Your task to perform on an android device: turn off notifications settings in the gmail app Image 0: 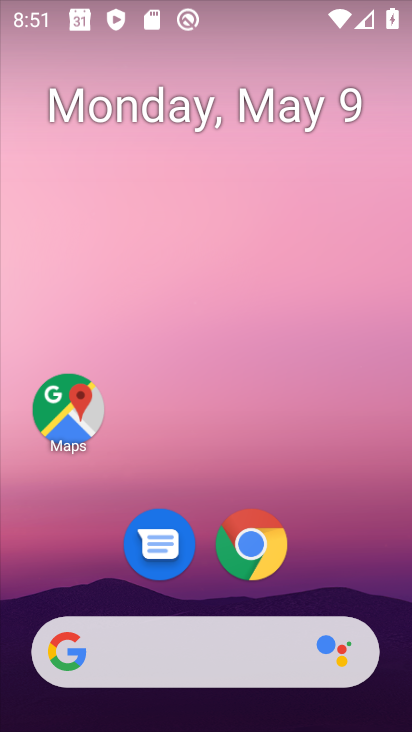
Step 0: drag from (321, 558) to (252, 104)
Your task to perform on an android device: turn off notifications settings in the gmail app Image 1: 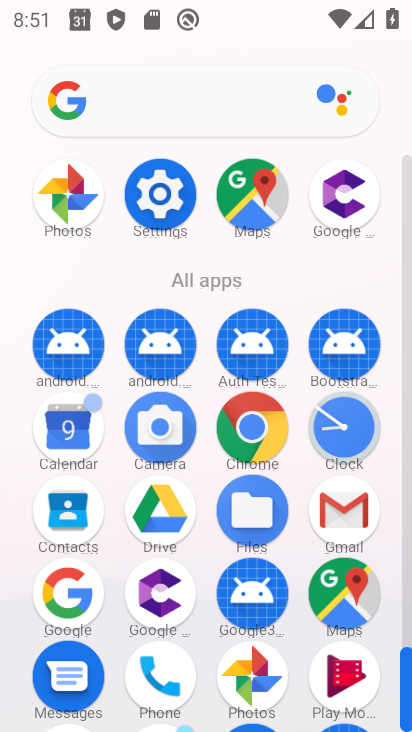
Step 1: click (347, 499)
Your task to perform on an android device: turn off notifications settings in the gmail app Image 2: 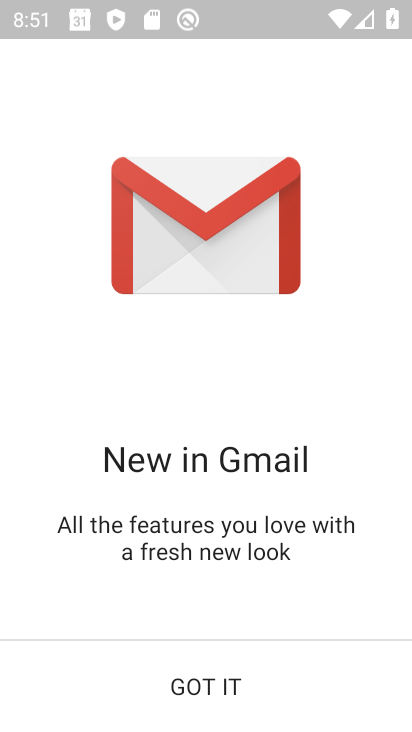
Step 2: click (210, 688)
Your task to perform on an android device: turn off notifications settings in the gmail app Image 3: 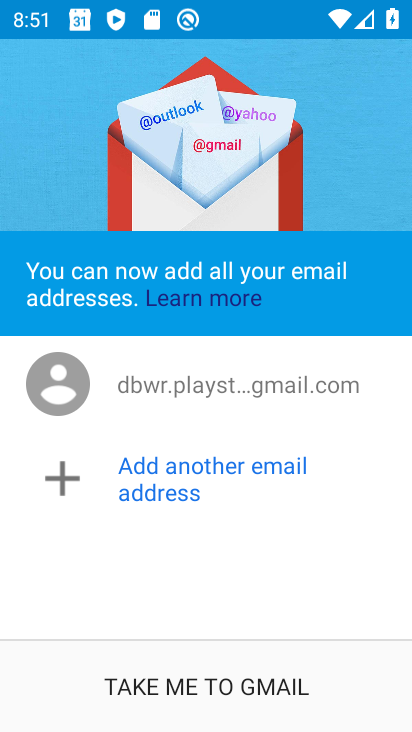
Step 3: click (210, 688)
Your task to perform on an android device: turn off notifications settings in the gmail app Image 4: 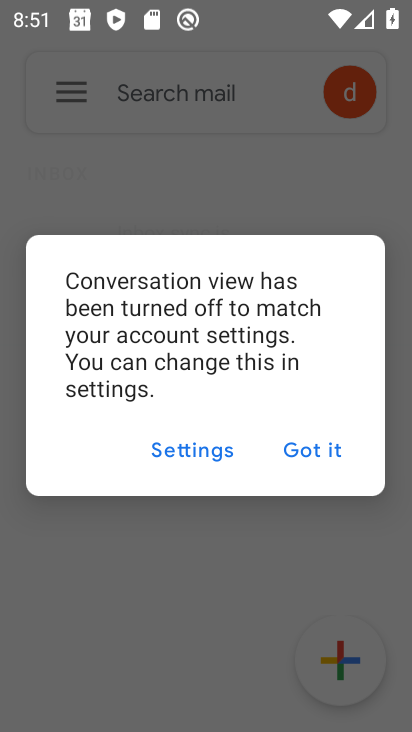
Step 4: click (304, 444)
Your task to perform on an android device: turn off notifications settings in the gmail app Image 5: 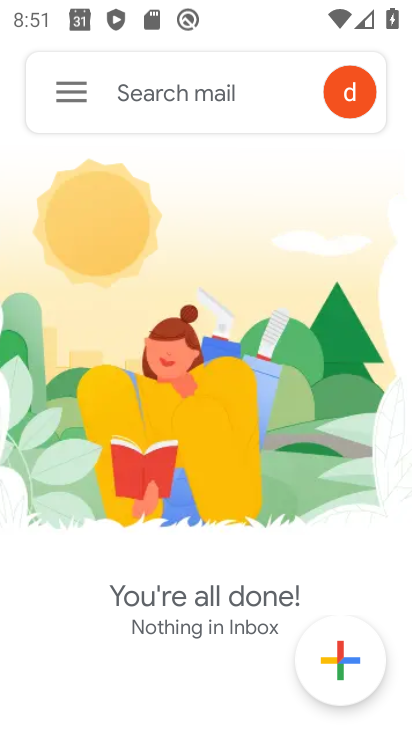
Step 5: click (70, 88)
Your task to perform on an android device: turn off notifications settings in the gmail app Image 6: 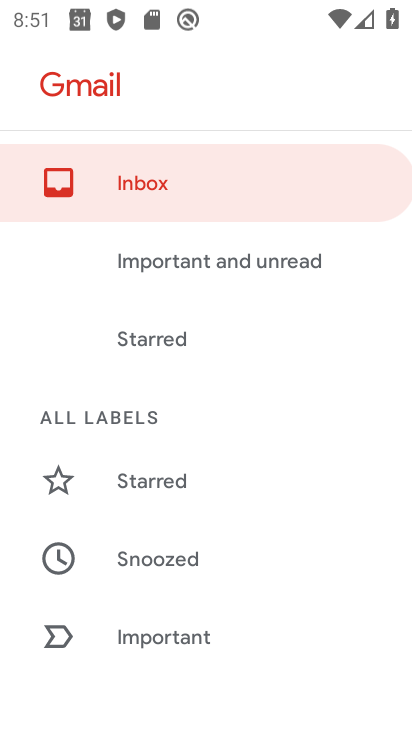
Step 6: drag from (234, 599) to (211, 208)
Your task to perform on an android device: turn off notifications settings in the gmail app Image 7: 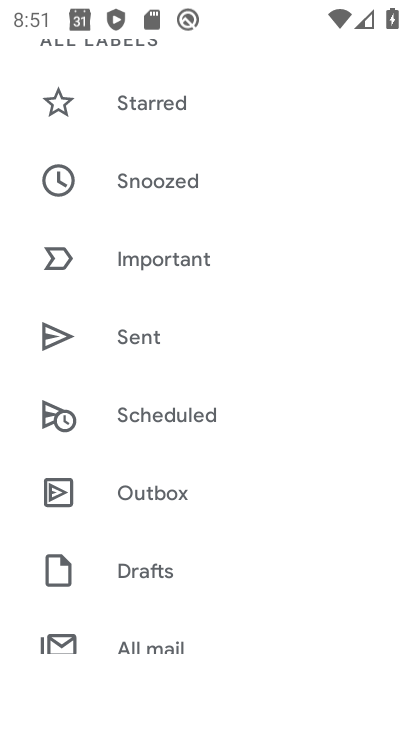
Step 7: drag from (138, 620) to (148, 16)
Your task to perform on an android device: turn off notifications settings in the gmail app Image 8: 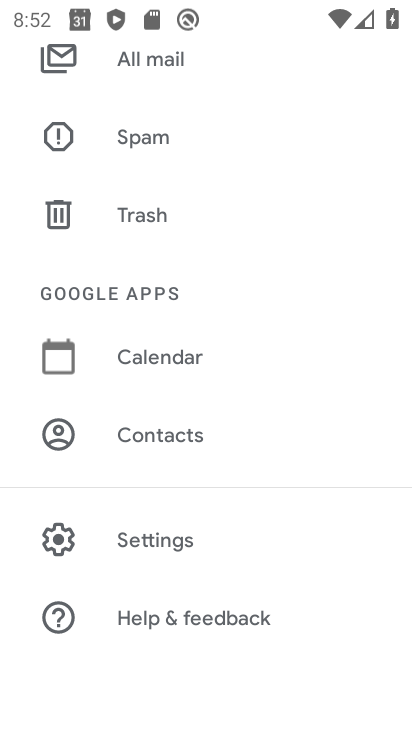
Step 8: click (126, 538)
Your task to perform on an android device: turn off notifications settings in the gmail app Image 9: 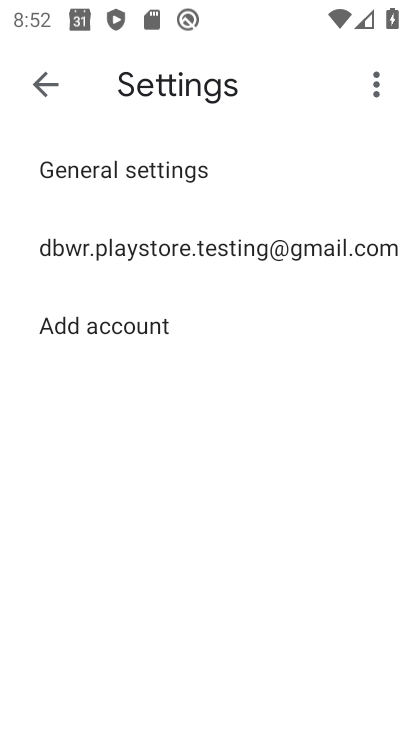
Step 9: click (112, 170)
Your task to perform on an android device: turn off notifications settings in the gmail app Image 10: 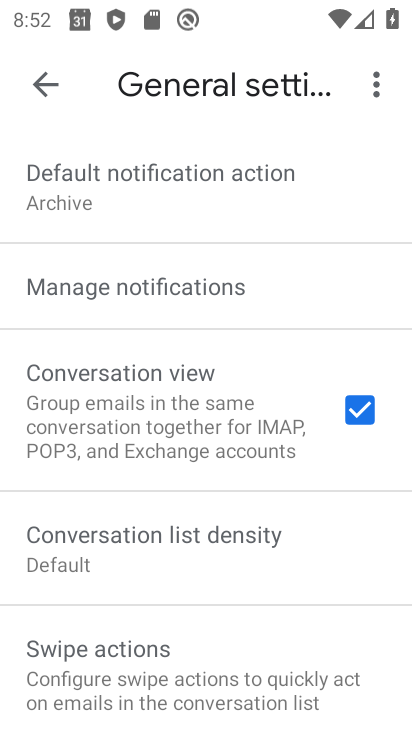
Step 10: click (112, 283)
Your task to perform on an android device: turn off notifications settings in the gmail app Image 11: 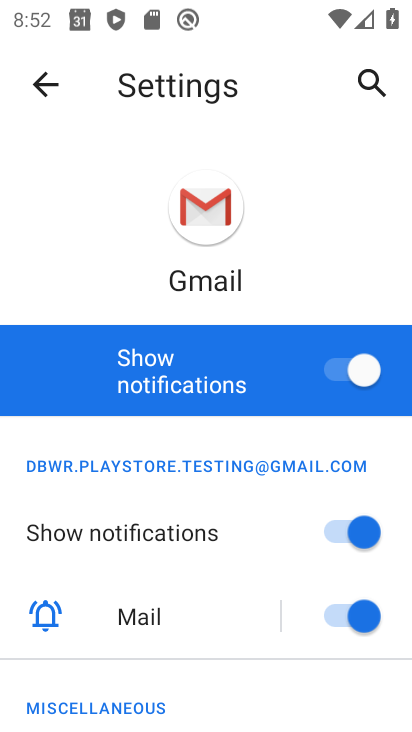
Step 11: click (363, 369)
Your task to perform on an android device: turn off notifications settings in the gmail app Image 12: 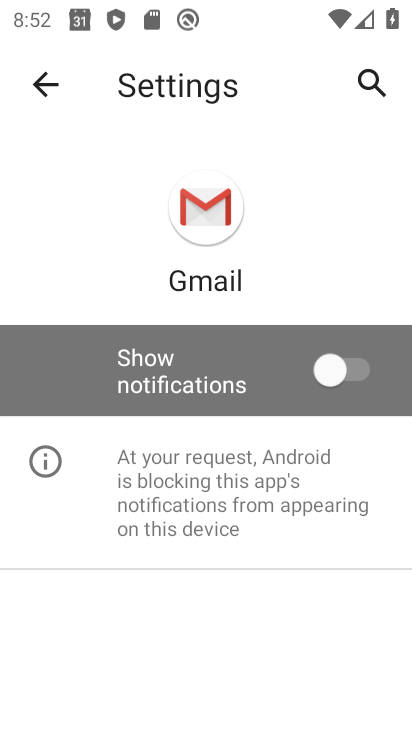
Step 12: task complete